Your task to perform on an android device: change the clock style Image 0: 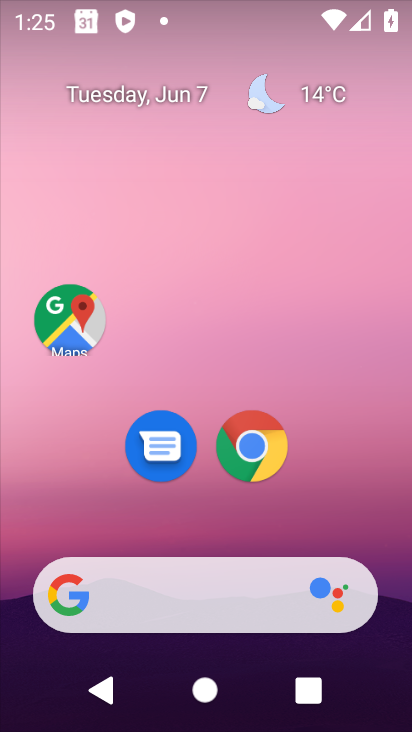
Step 0: drag from (259, 674) to (175, 7)
Your task to perform on an android device: change the clock style Image 1: 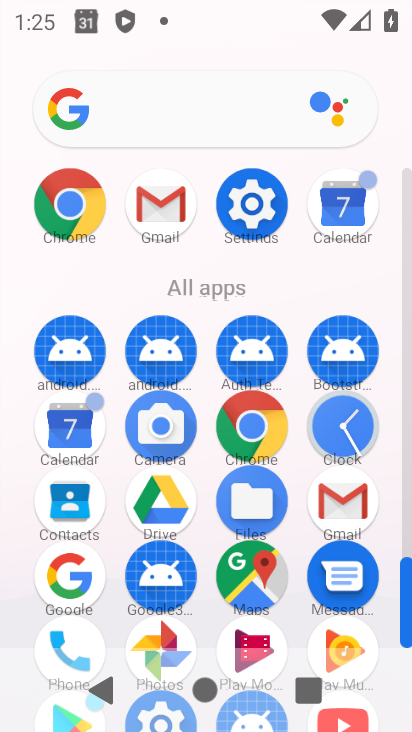
Step 1: click (324, 426)
Your task to perform on an android device: change the clock style Image 2: 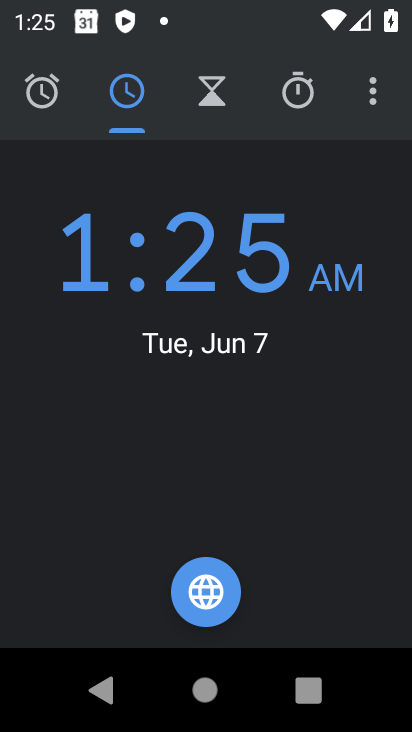
Step 2: click (387, 79)
Your task to perform on an android device: change the clock style Image 3: 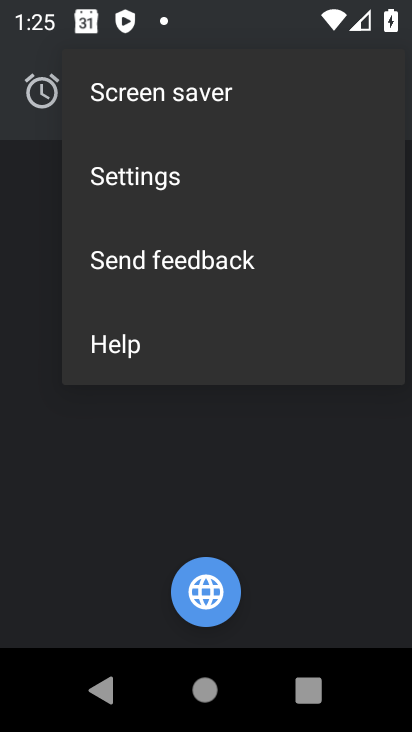
Step 3: click (142, 196)
Your task to perform on an android device: change the clock style Image 4: 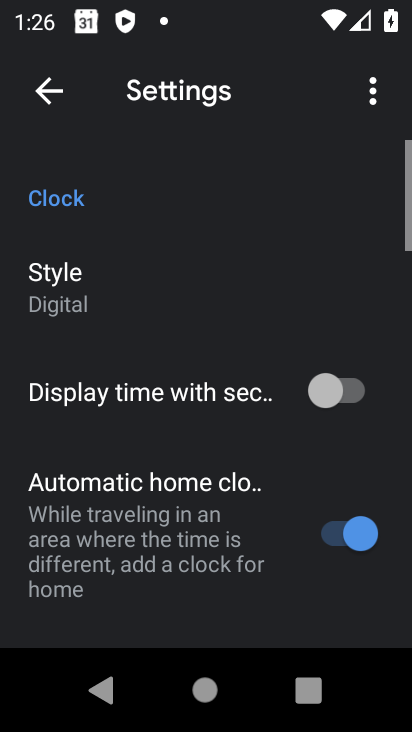
Step 4: click (37, 316)
Your task to perform on an android device: change the clock style Image 5: 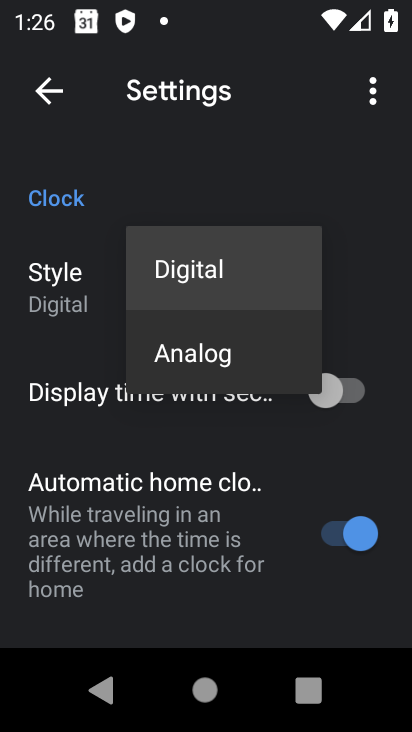
Step 5: click (245, 365)
Your task to perform on an android device: change the clock style Image 6: 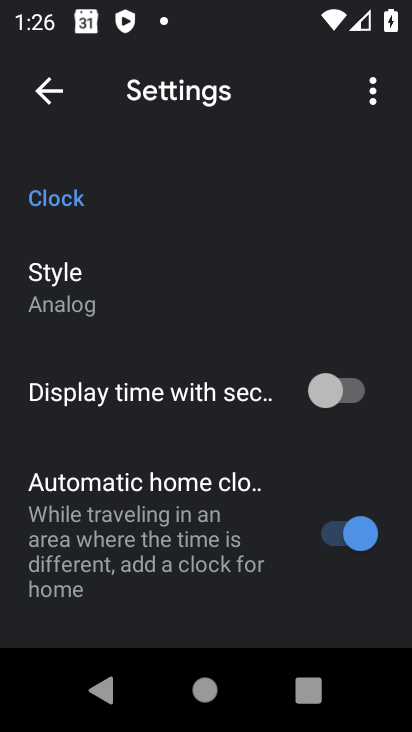
Step 6: task complete